Your task to perform on an android device: turn on wifi Image 0: 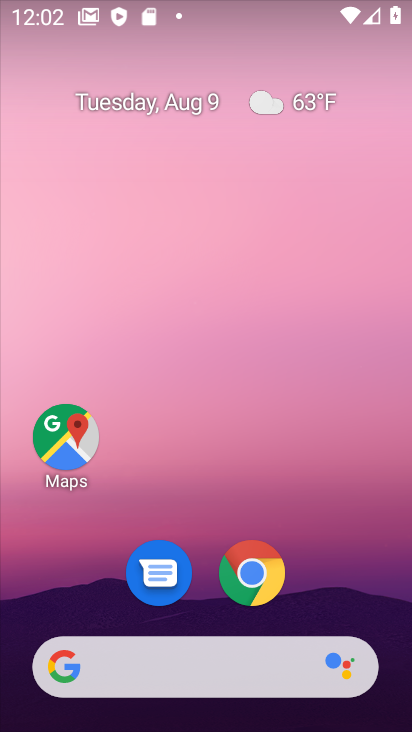
Step 0: drag from (172, 632) to (110, 287)
Your task to perform on an android device: turn on wifi Image 1: 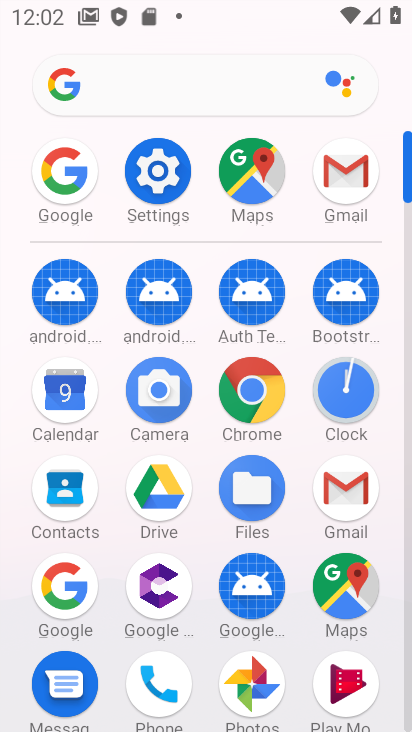
Step 1: click (162, 161)
Your task to perform on an android device: turn on wifi Image 2: 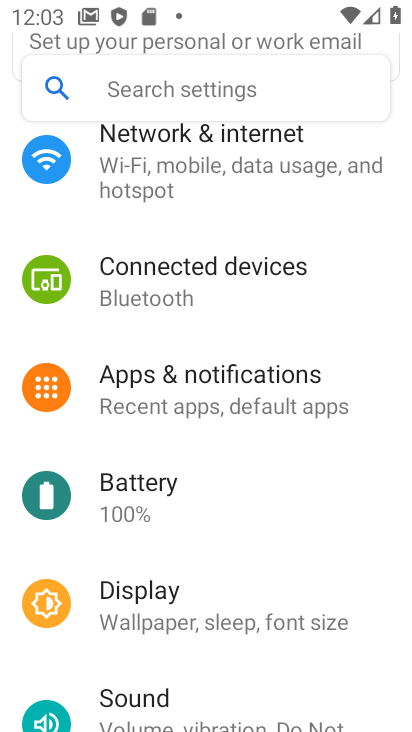
Step 2: drag from (196, 145) to (236, 530)
Your task to perform on an android device: turn on wifi Image 3: 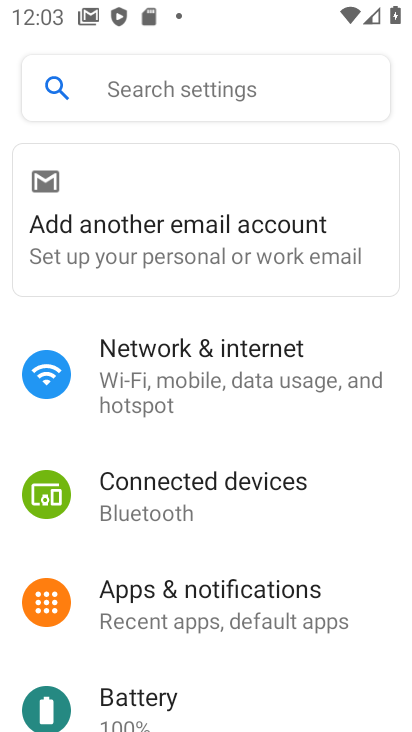
Step 3: click (202, 401)
Your task to perform on an android device: turn on wifi Image 4: 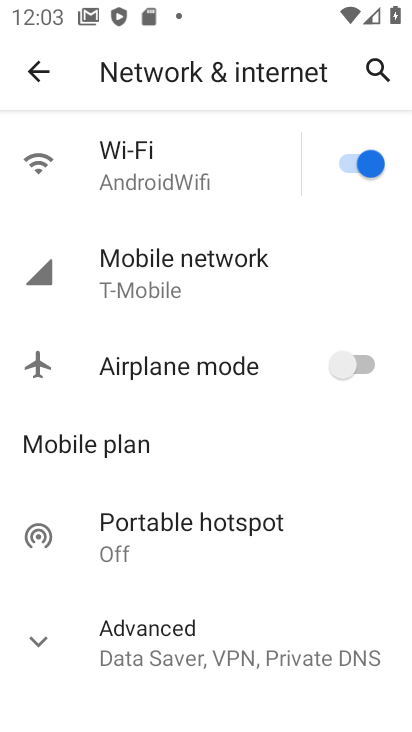
Step 4: task complete